Your task to perform on an android device: turn smart compose on in the gmail app Image 0: 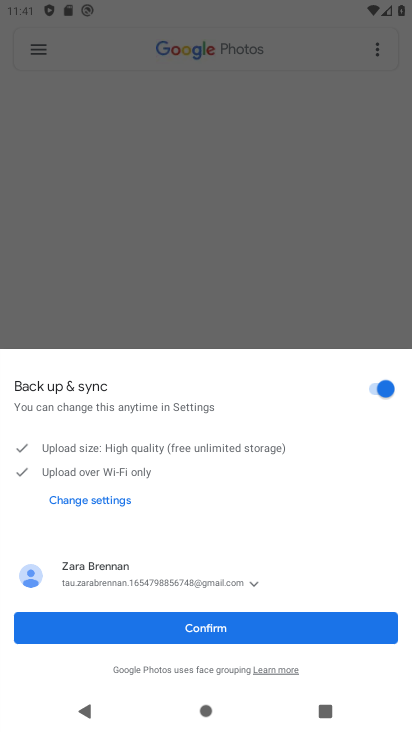
Step 0: press home button
Your task to perform on an android device: turn smart compose on in the gmail app Image 1: 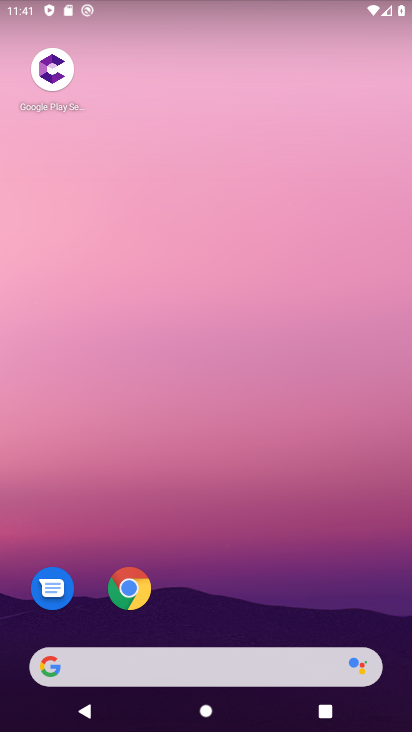
Step 1: drag from (301, 643) to (369, 206)
Your task to perform on an android device: turn smart compose on in the gmail app Image 2: 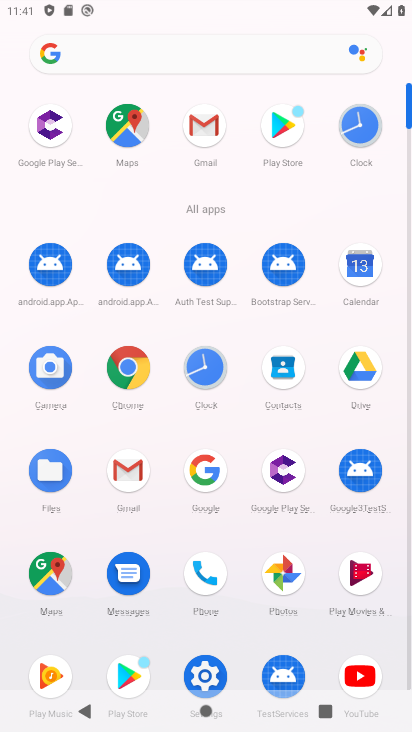
Step 2: click (141, 463)
Your task to perform on an android device: turn smart compose on in the gmail app Image 3: 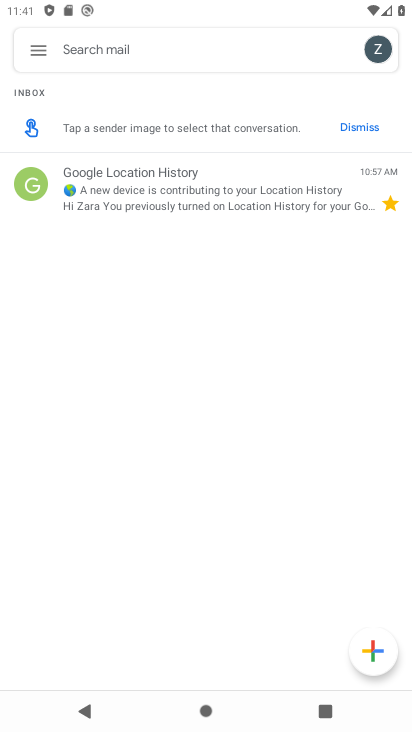
Step 3: click (41, 48)
Your task to perform on an android device: turn smart compose on in the gmail app Image 4: 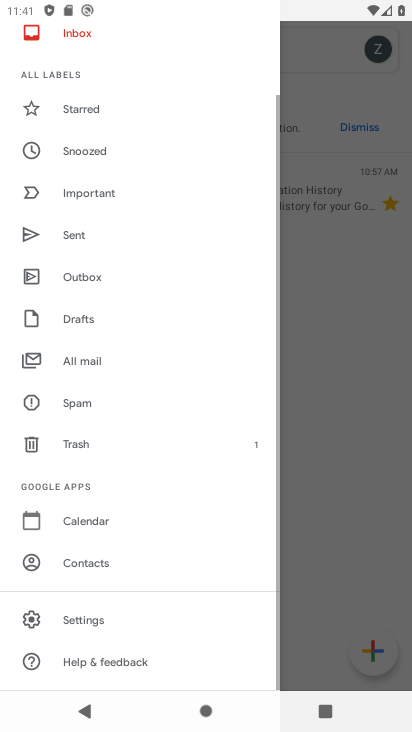
Step 4: drag from (106, 561) to (224, 240)
Your task to perform on an android device: turn smart compose on in the gmail app Image 5: 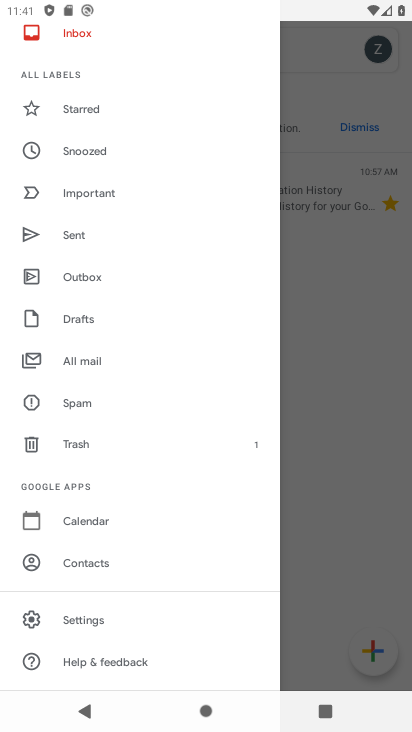
Step 5: click (135, 624)
Your task to perform on an android device: turn smart compose on in the gmail app Image 6: 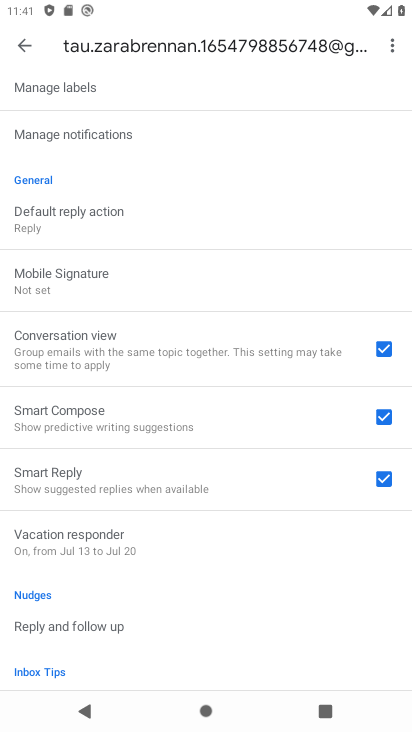
Step 6: task complete